Your task to perform on an android device: toggle wifi Image 0: 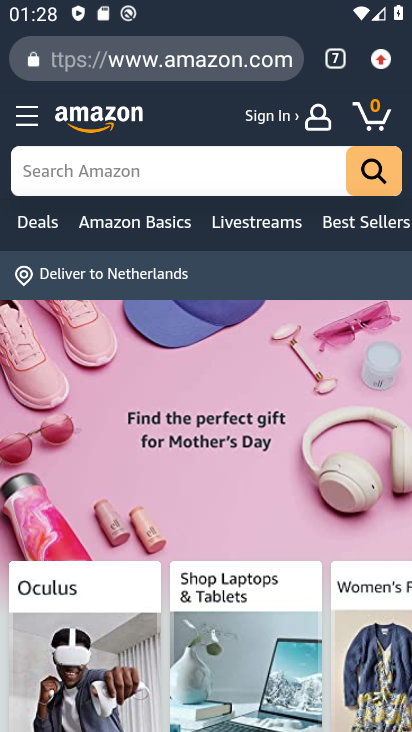
Step 0: press home button
Your task to perform on an android device: toggle wifi Image 1: 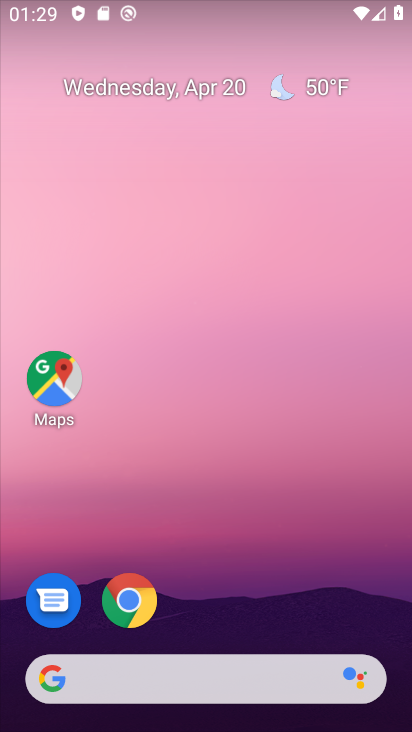
Step 1: drag from (250, 638) to (214, 138)
Your task to perform on an android device: toggle wifi Image 2: 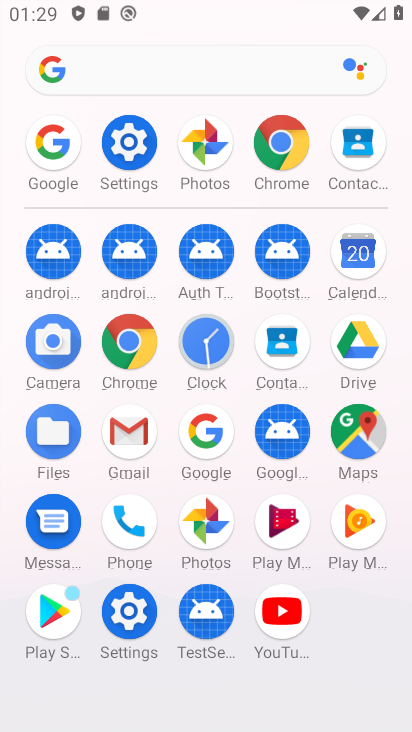
Step 2: click (128, 145)
Your task to perform on an android device: toggle wifi Image 3: 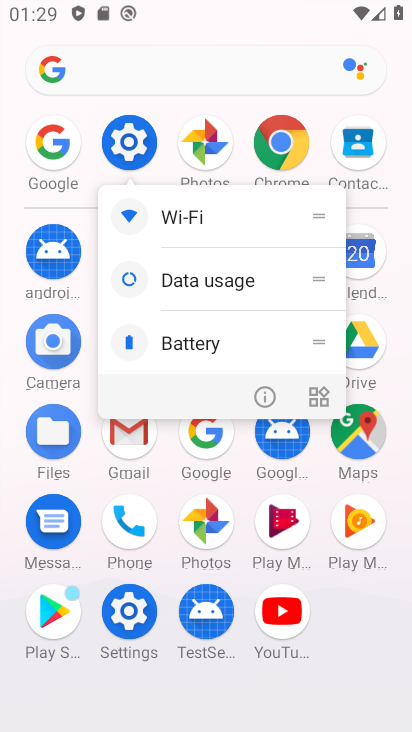
Step 3: click (168, 211)
Your task to perform on an android device: toggle wifi Image 4: 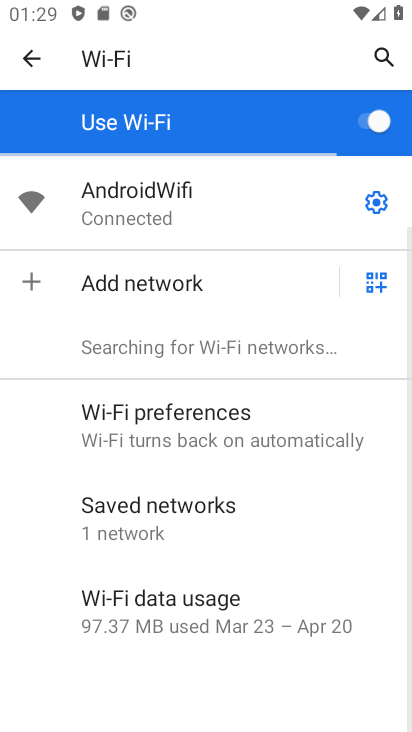
Step 4: click (377, 115)
Your task to perform on an android device: toggle wifi Image 5: 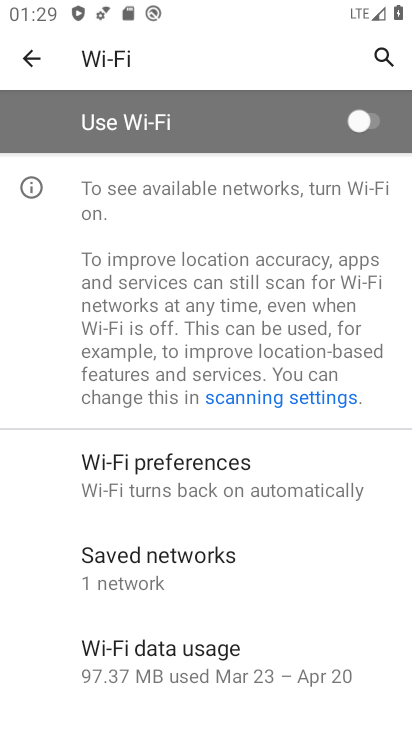
Step 5: task complete